Your task to perform on an android device: Open Yahoo.com Image 0: 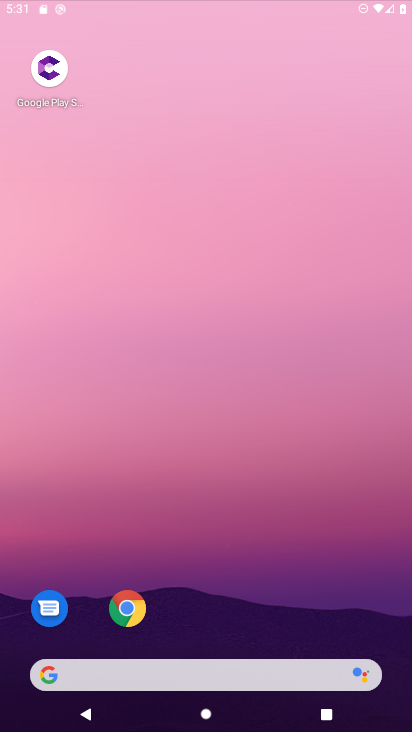
Step 0: drag from (340, 527) to (274, 16)
Your task to perform on an android device: Open Yahoo.com Image 1: 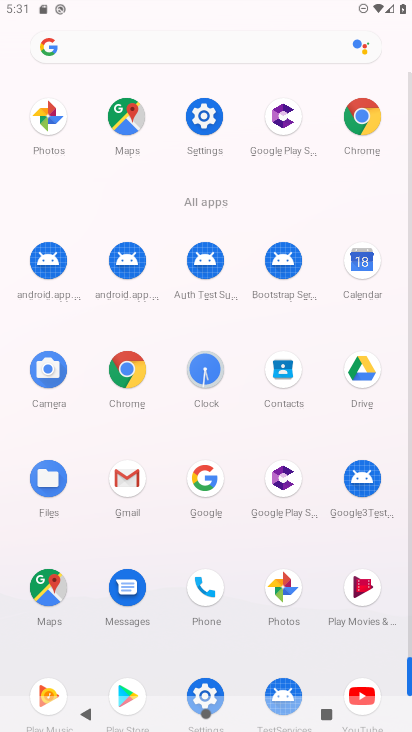
Step 1: click (360, 116)
Your task to perform on an android device: Open Yahoo.com Image 2: 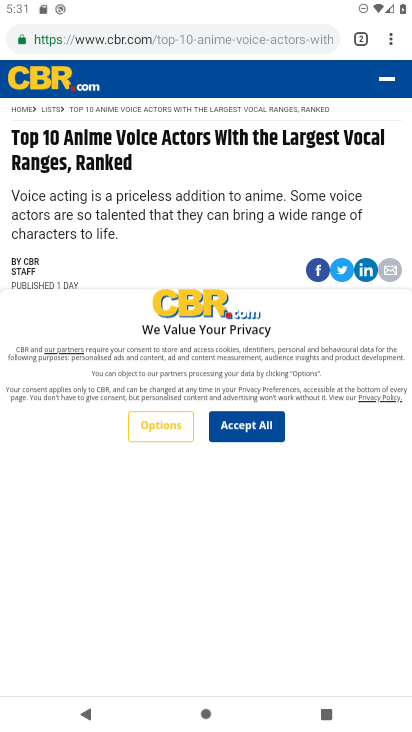
Step 2: click (231, 44)
Your task to perform on an android device: Open Yahoo.com Image 3: 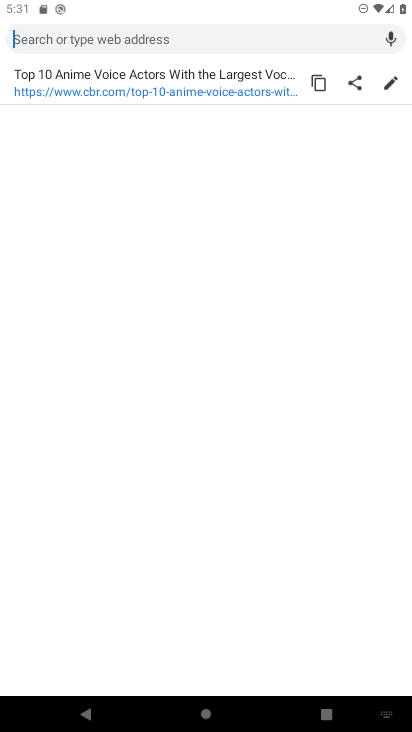
Step 3: type "Yahoo.com"
Your task to perform on an android device: Open Yahoo.com Image 4: 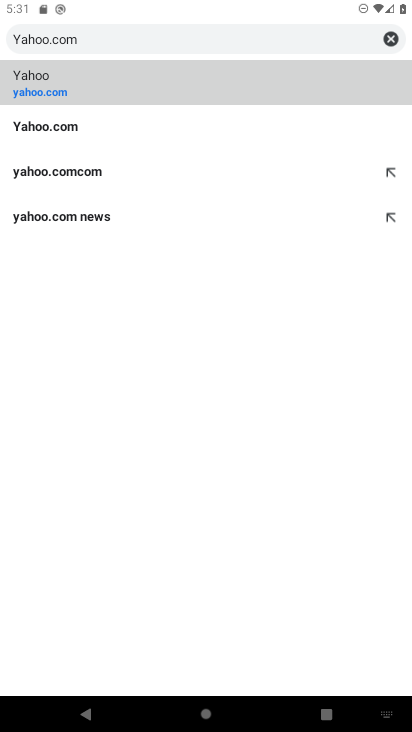
Step 4: click (103, 84)
Your task to perform on an android device: Open Yahoo.com Image 5: 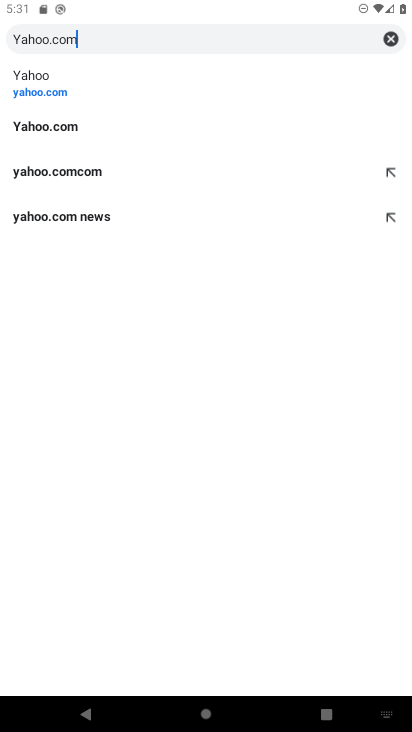
Step 5: click (67, 86)
Your task to perform on an android device: Open Yahoo.com Image 6: 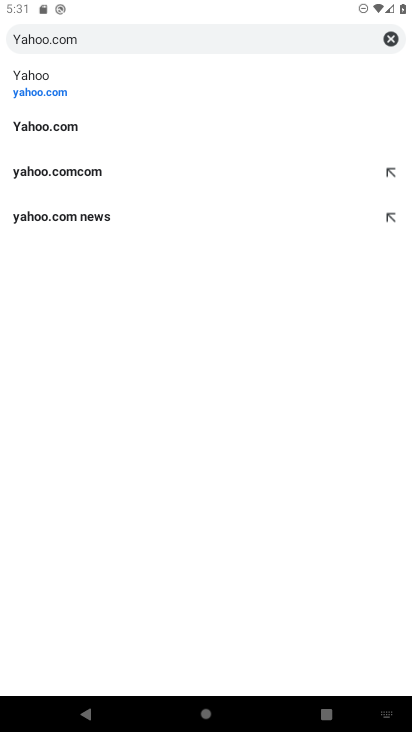
Step 6: click (67, 86)
Your task to perform on an android device: Open Yahoo.com Image 7: 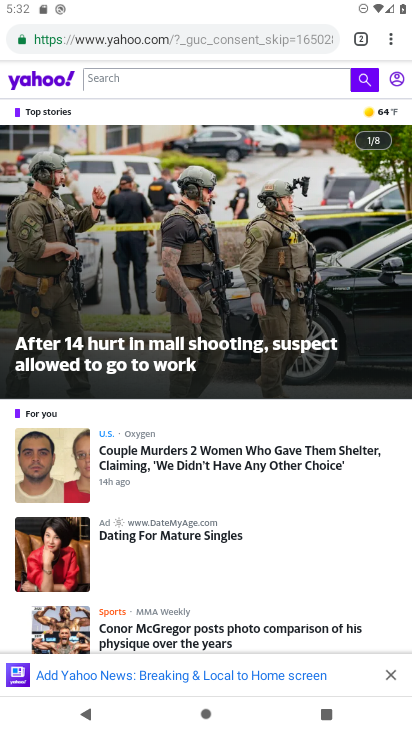
Step 7: task complete